Your task to perform on an android device: open sync settings in chrome Image 0: 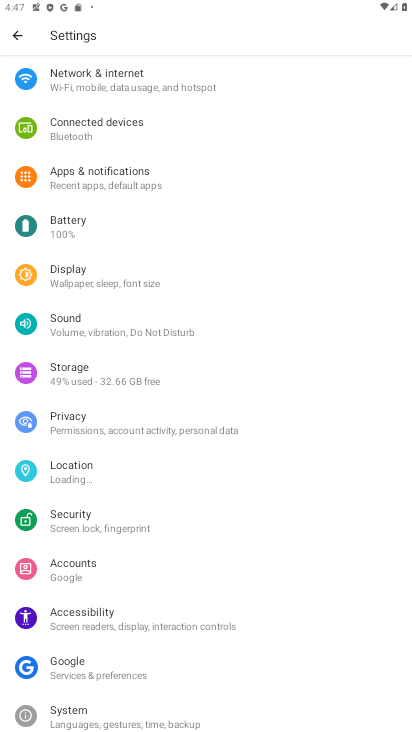
Step 0: press home button
Your task to perform on an android device: open sync settings in chrome Image 1: 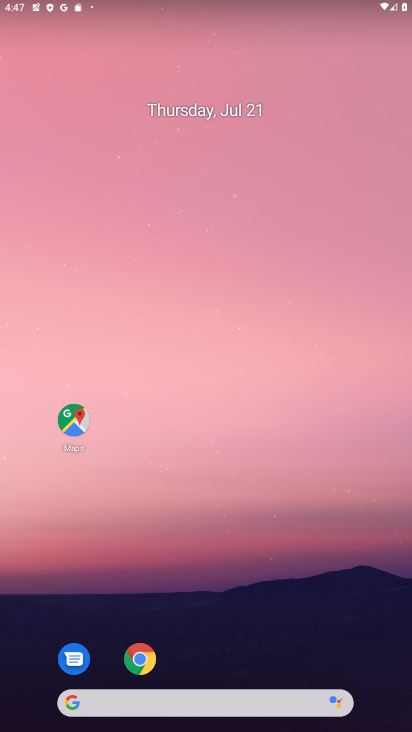
Step 1: click (141, 662)
Your task to perform on an android device: open sync settings in chrome Image 2: 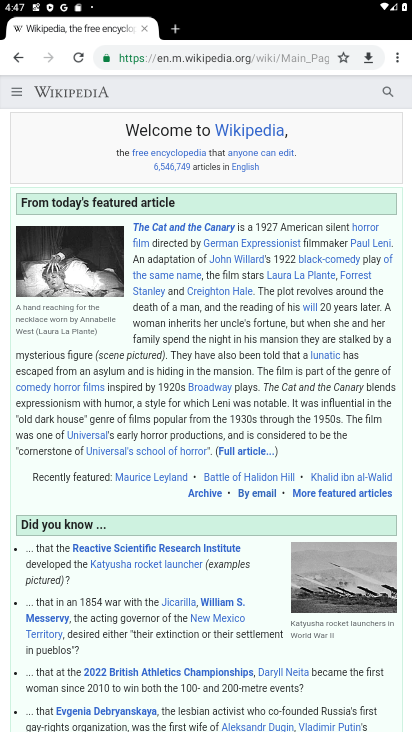
Step 2: click (394, 53)
Your task to perform on an android device: open sync settings in chrome Image 3: 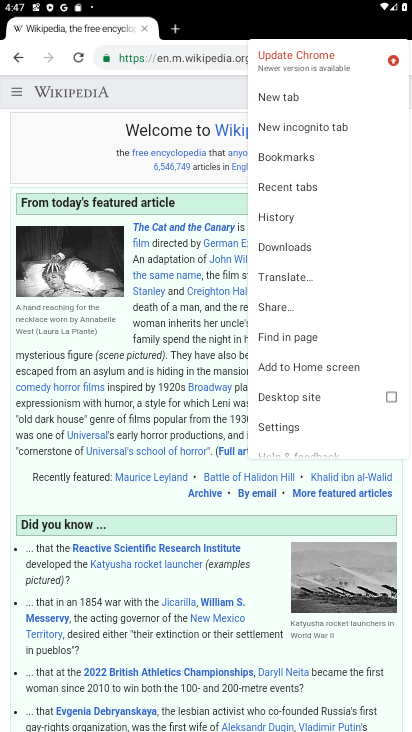
Step 3: click (293, 428)
Your task to perform on an android device: open sync settings in chrome Image 4: 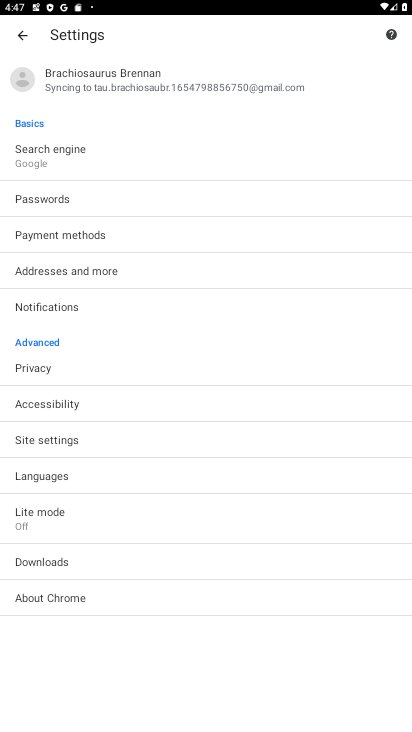
Step 4: click (94, 79)
Your task to perform on an android device: open sync settings in chrome Image 5: 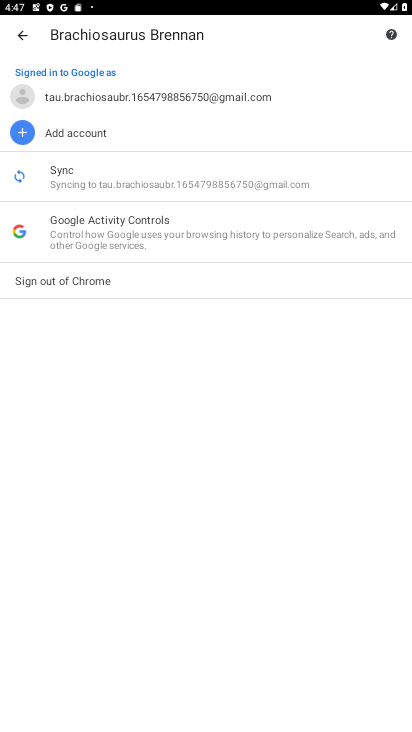
Step 5: click (71, 175)
Your task to perform on an android device: open sync settings in chrome Image 6: 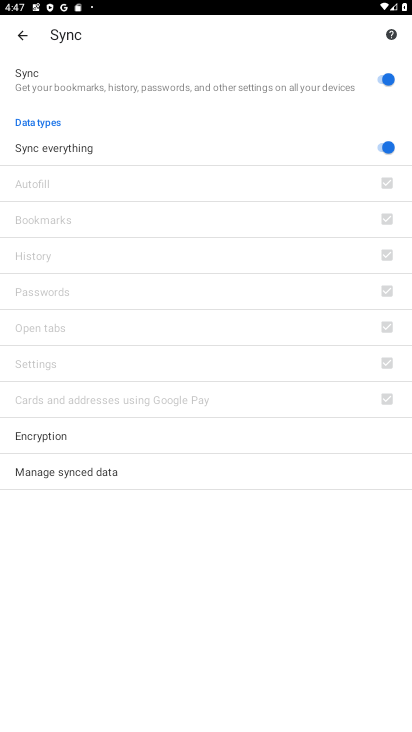
Step 6: task complete